Your task to perform on an android device: install app "Roku - Official Remote Control" Image 0: 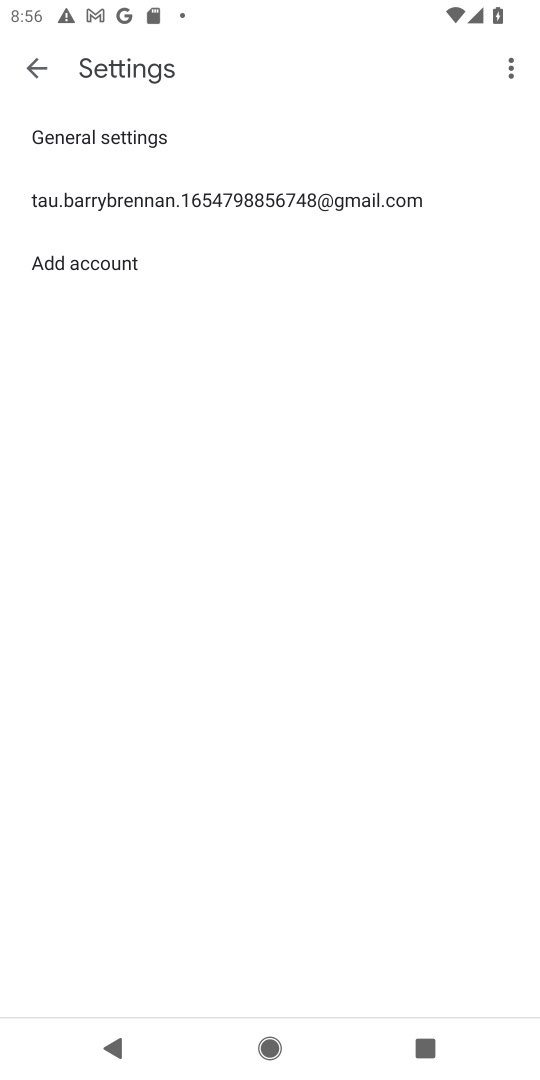
Step 0: press home button
Your task to perform on an android device: install app "Roku - Official Remote Control" Image 1: 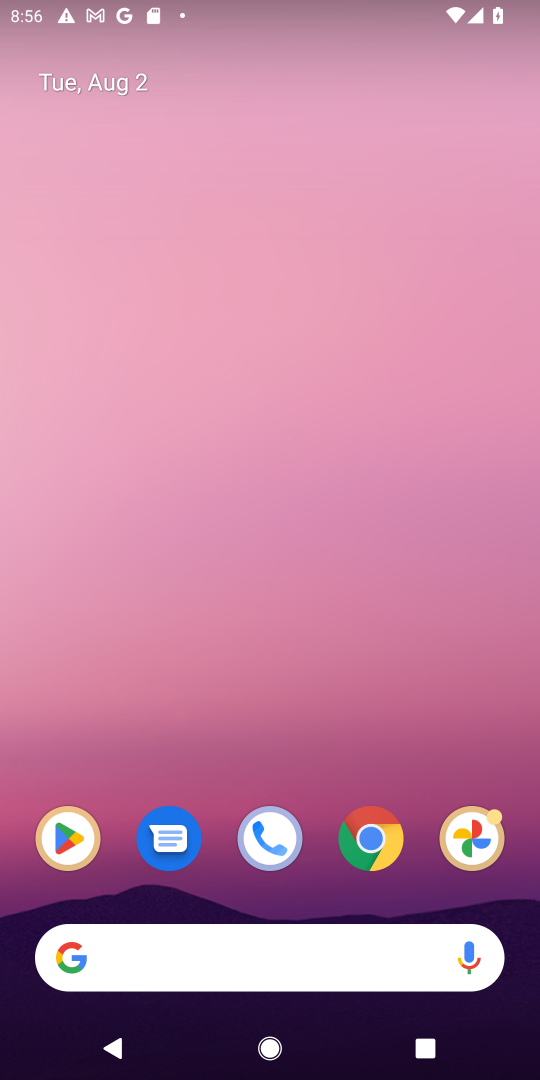
Step 1: drag from (315, 755) to (311, 40)
Your task to perform on an android device: install app "Roku - Official Remote Control" Image 2: 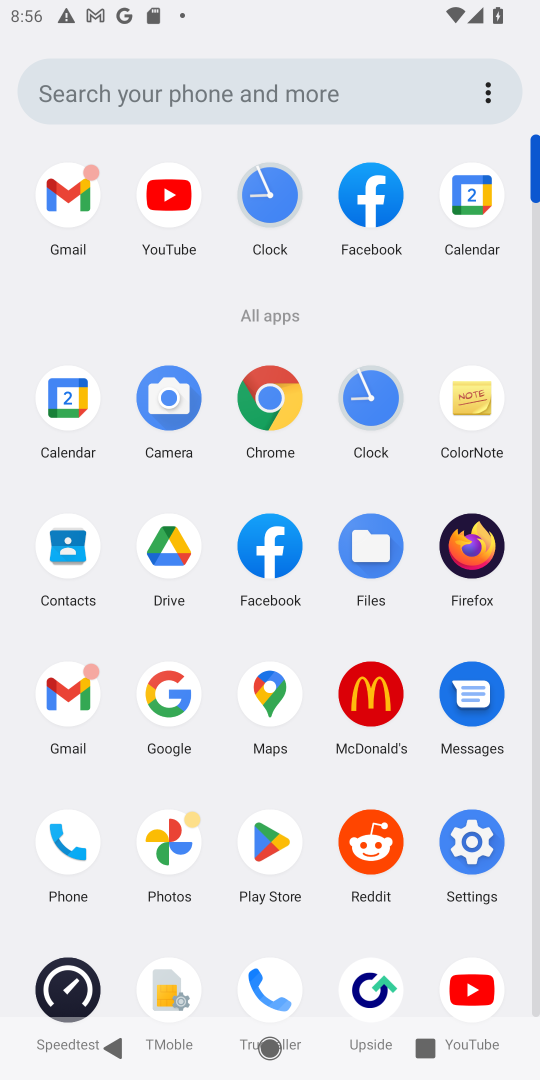
Step 2: click (280, 840)
Your task to perform on an android device: install app "Roku - Official Remote Control" Image 3: 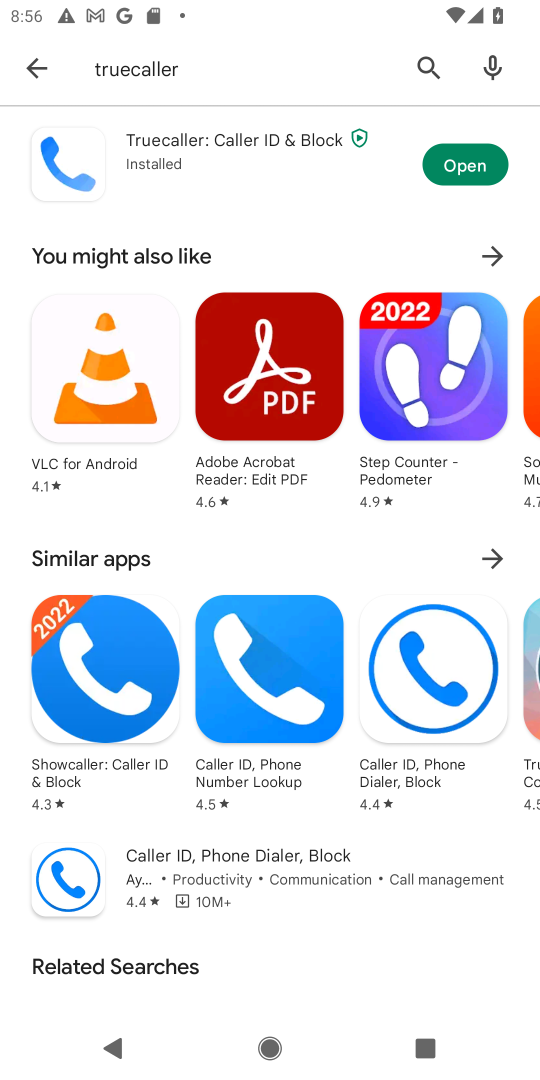
Step 3: click (421, 56)
Your task to perform on an android device: install app "Roku - Official Remote Control" Image 4: 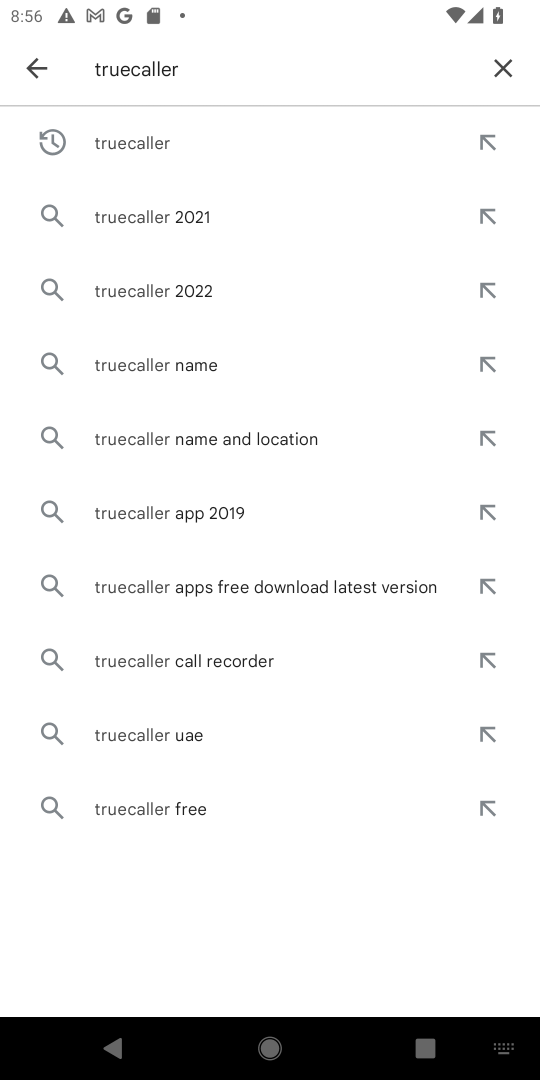
Step 4: click (504, 74)
Your task to perform on an android device: install app "Roku - Official Remote Control" Image 5: 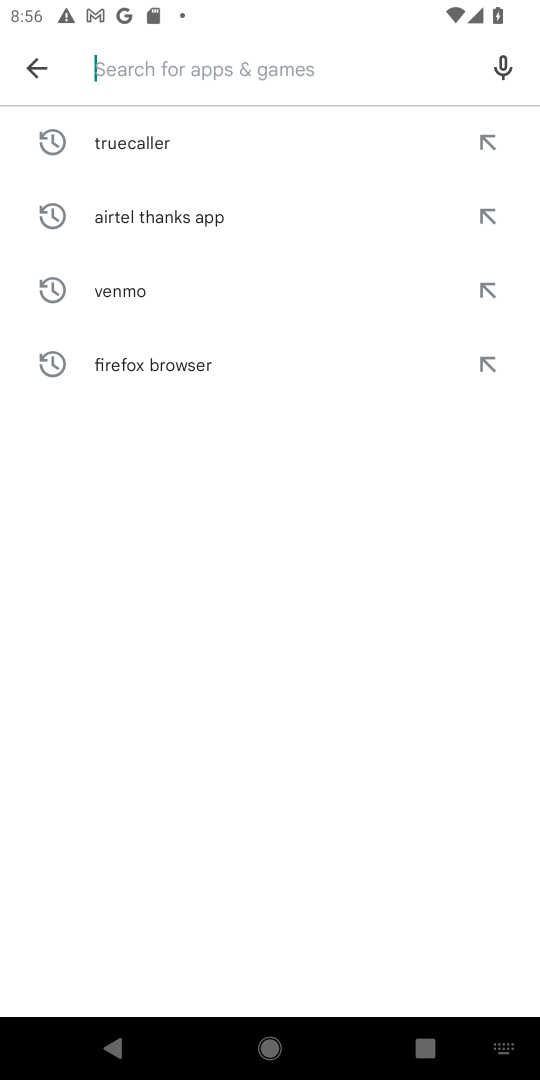
Step 5: type "roku"
Your task to perform on an android device: install app "Roku - Official Remote Control" Image 6: 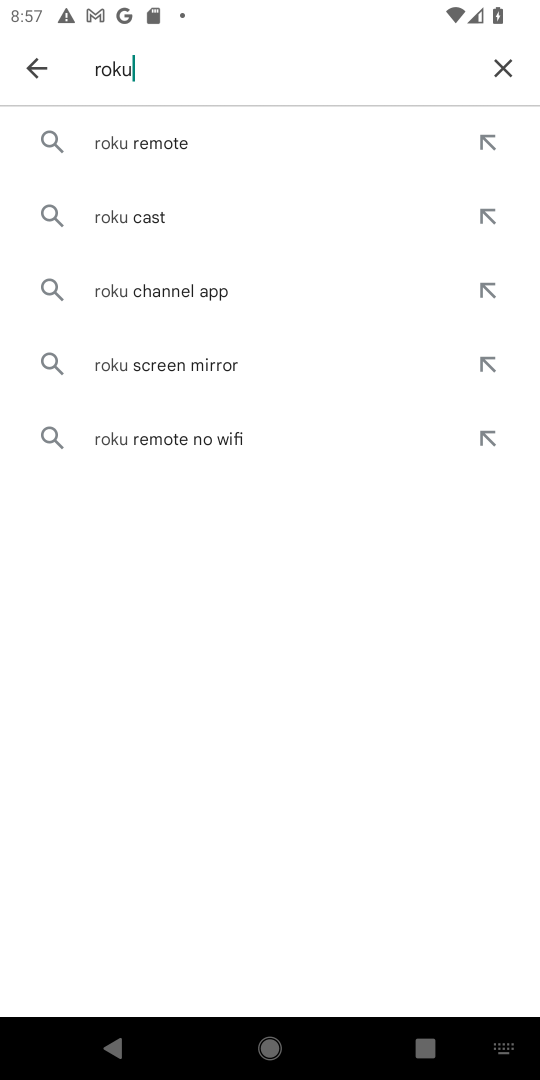
Step 6: click (181, 139)
Your task to perform on an android device: install app "Roku - Official Remote Control" Image 7: 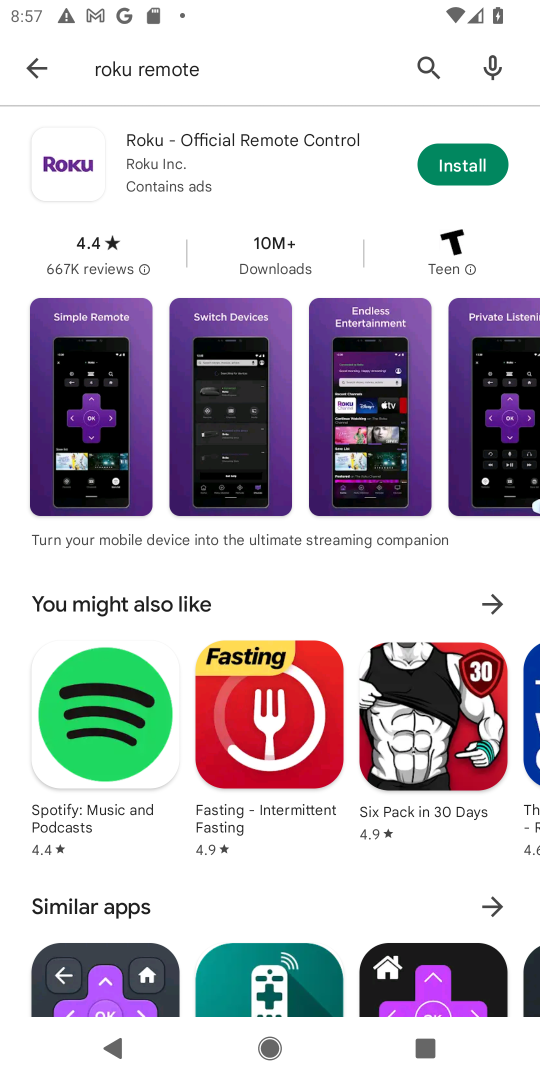
Step 7: click (457, 162)
Your task to perform on an android device: install app "Roku - Official Remote Control" Image 8: 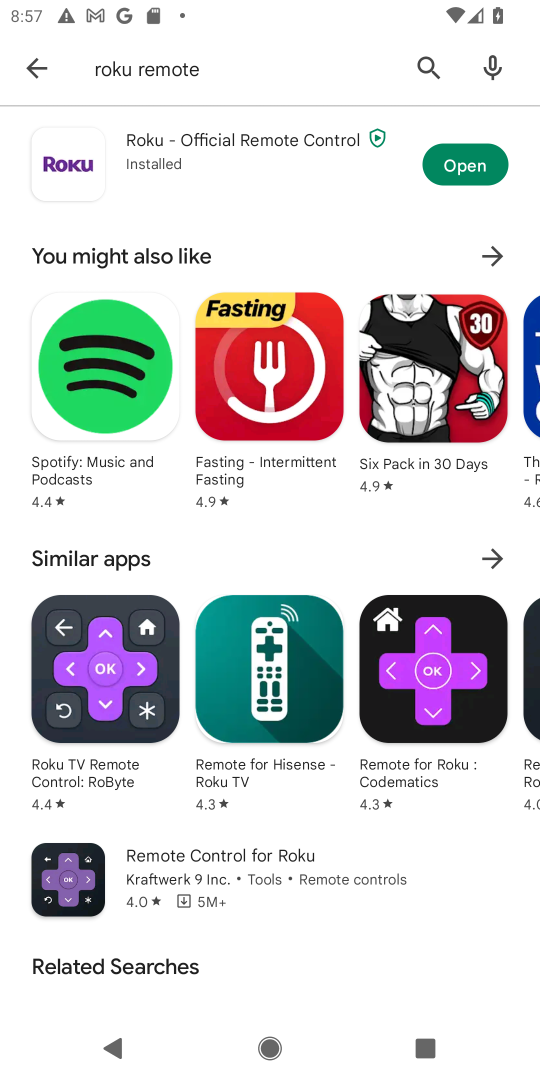
Step 8: task complete